Your task to perform on an android device: open app "Calculator" (install if not already installed) Image 0: 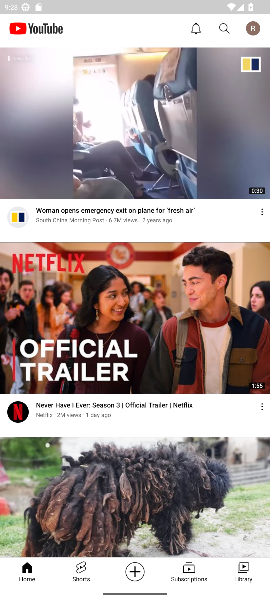
Step 0: press home button
Your task to perform on an android device: open app "Calculator" (install if not already installed) Image 1: 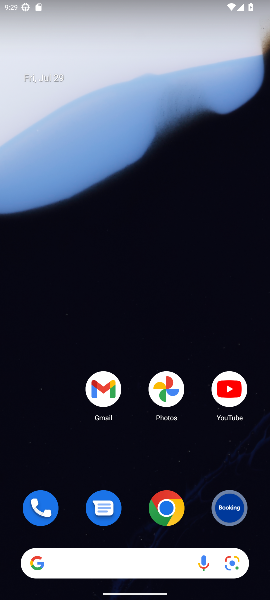
Step 1: drag from (106, 567) to (143, 124)
Your task to perform on an android device: open app "Calculator" (install if not already installed) Image 2: 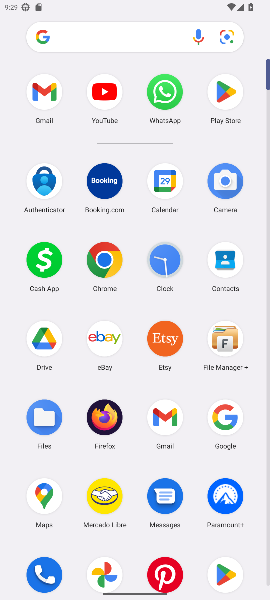
Step 2: click (217, 85)
Your task to perform on an android device: open app "Calculator" (install if not already installed) Image 3: 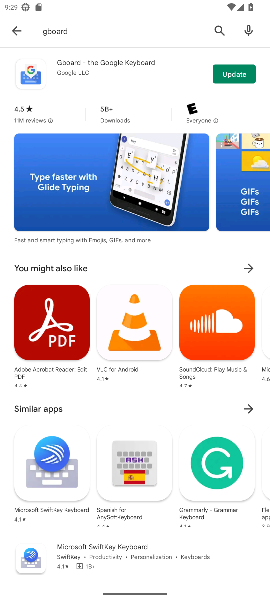
Step 3: click (215, 26)
Your task to perform on an android device: open app "Calculator" (install if not already installed) Image 4: 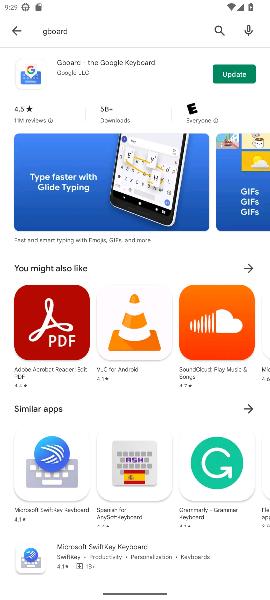
Step 4: click (215, 26)
Your task to perform on an android device: open app "Calculator" (install if not already installed) Image 5: 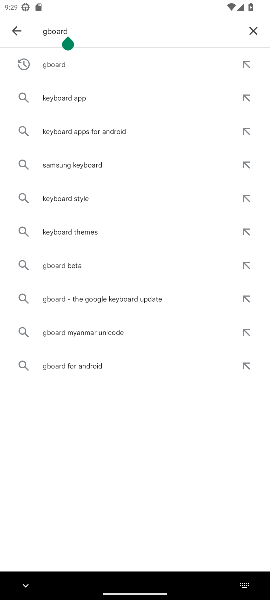
Step 5: click (250, 25)
Your task to perform on an android device: open app "Calculator" (install if not already installed) Image 6: 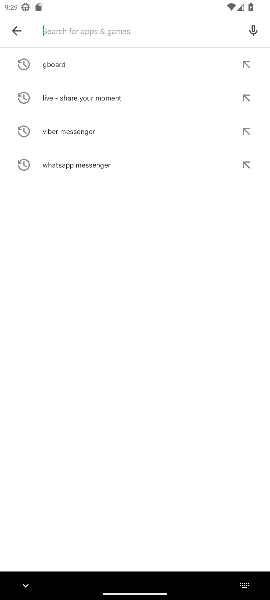
Step 6: type "calculator"
Your task to perform on an android device: open app "Calculator" (install if not already installed) Image 7: 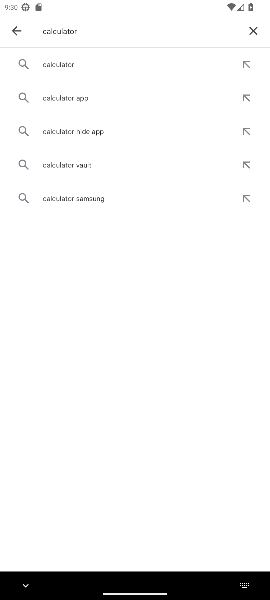
Step 7: click (75, 65)
Your task to perform on an android device: open app "Calculator" (install if not already installed) Image 8: 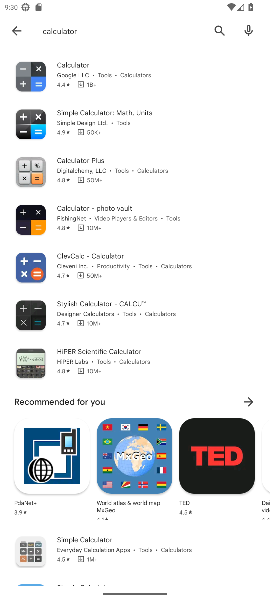
Step 8: click (75, 65)
Your task to perform on an android device: open app "Calculator" (install if not already installed) Image 9: 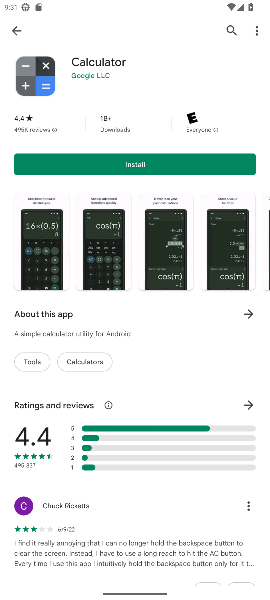
Step 9: click (230, 172)
Your task to perform on an android device: open app "Calculator" (install if not already installed) Image 10: 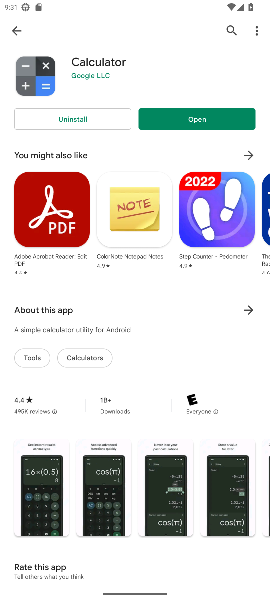
Step 10: click (201, 108)
Your task to perform on an android device: open app "Calculator" (install if not already installed) Image 11: 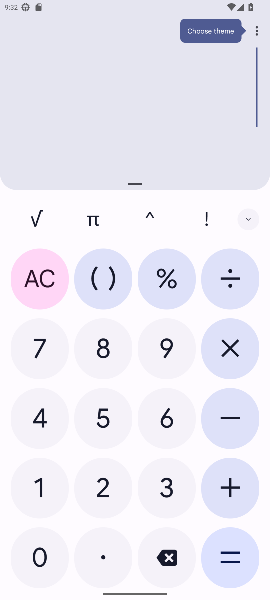
Step 11: task complete